Your task to perform on an android device: set the stopwatch Image 0: 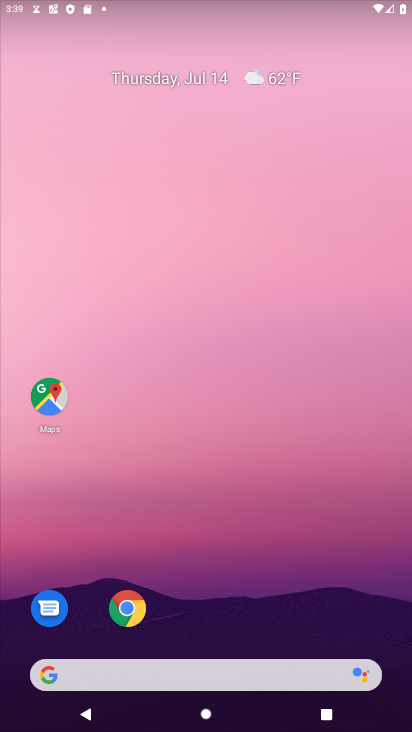
Step 0: click (132, 616)
Your task to perform on an android device: set the stopwatch Image 1: 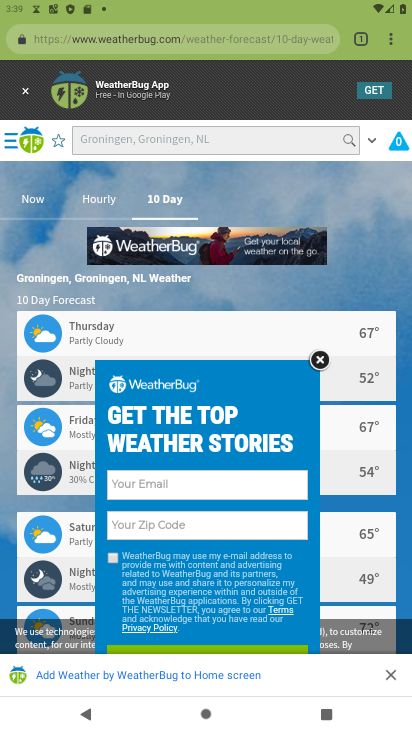
Step 1: press home button
Your task to perform on an android device: set the stopwatch Image 2: 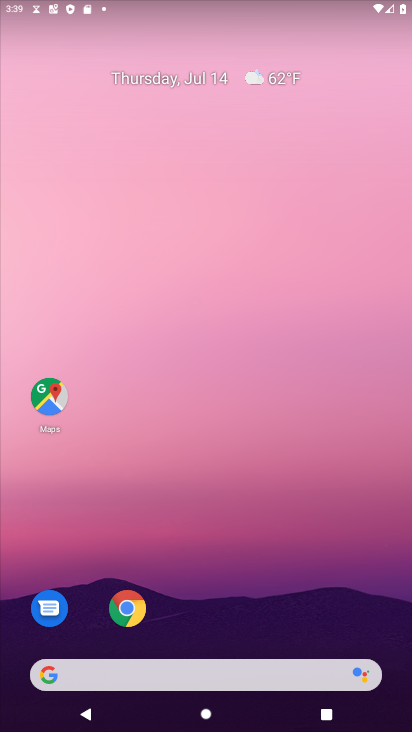
Step 2: drag from (157, 680) to (116, 126)
Your task to perform on an android device: set the stopwatch Image 3: 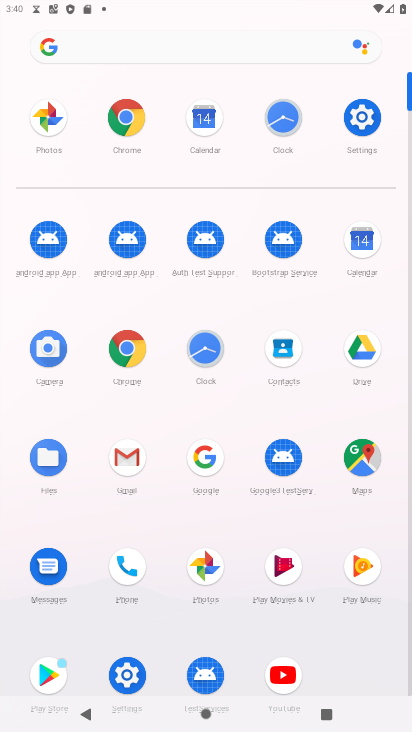
Step 3: click (197, 353)
Your task to perform on an android device: set the stopwatch Image 4: 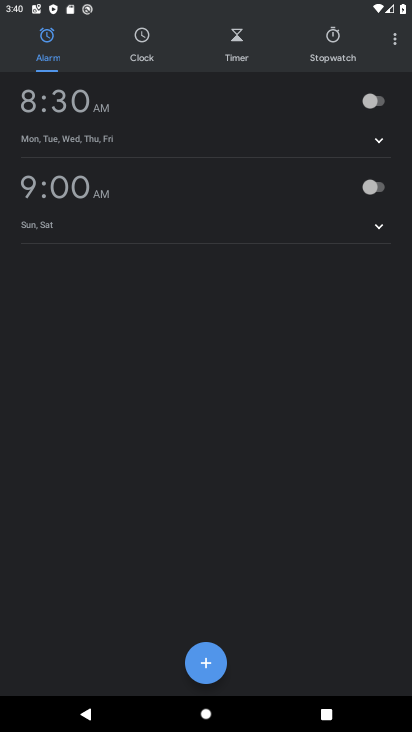
Step 4: click (327, 54)
Your task to perform on an android device: set the stopwatch Image 5: 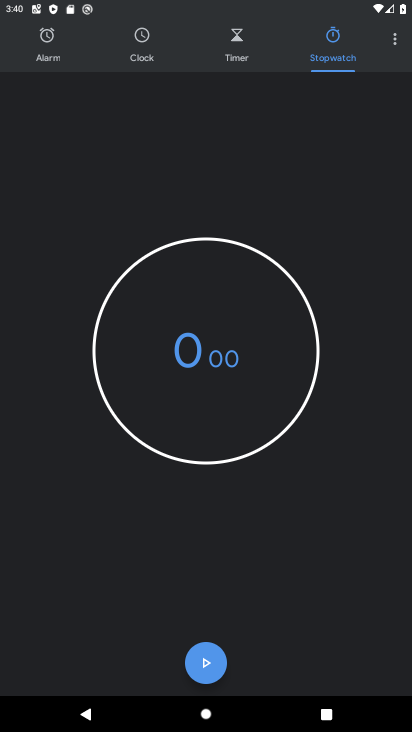
Step 5: click (224, 655)
Your task to perform on an android device: set the stopwatch Image 6: 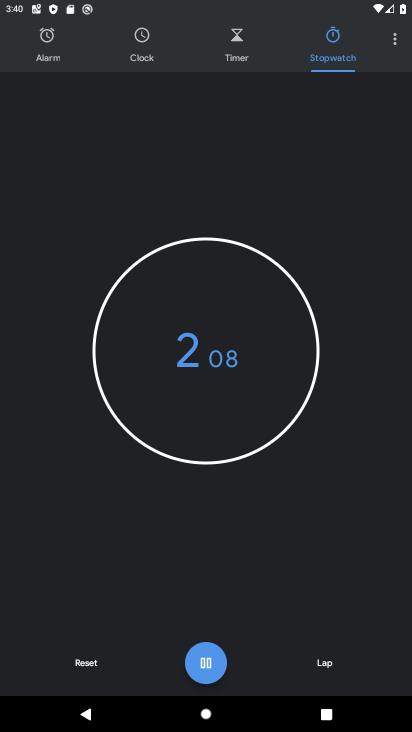
Step 6: task complete